Your task to perform on an android device: open sync settings in chrome Image 0: 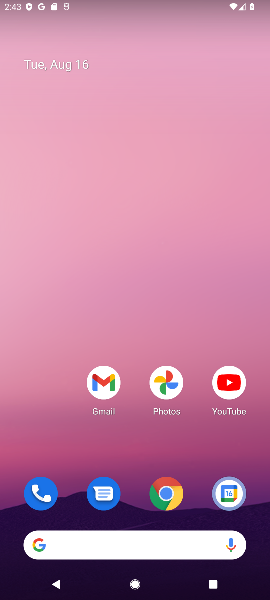
Step 0: press home button
Your task to perform on an android device: open sync settings in chrome Image 1: 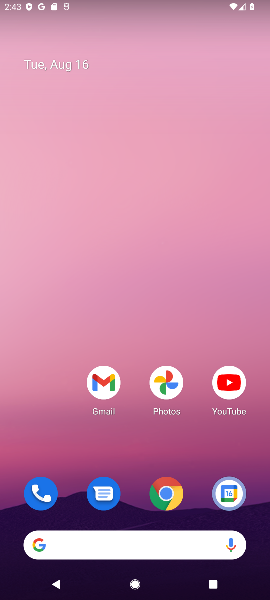
Step 1: drag from (64, 438) to (57, 135)
Your task to perform on an android device: open sync settings in chrome Image 2: 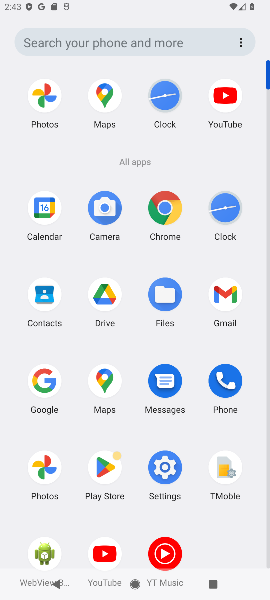
Step 2: click (167, 213)
Your task to perform on an android device: open sync settings in chrome Image 3: 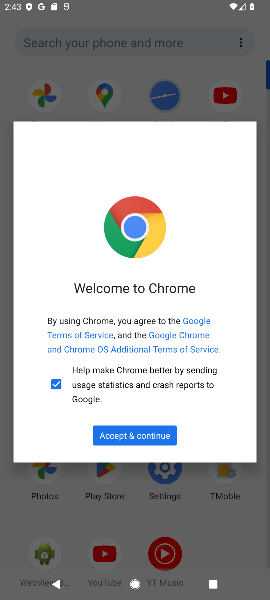
Step 3: click (143, 435)
Your task to perform on an android device: open sync settings in chrome Image 4: 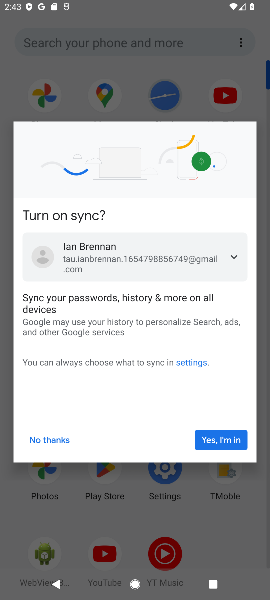
Step 4: click (232, 437)
Your task to perform on an android device: open sync settings in chrome Image 5: 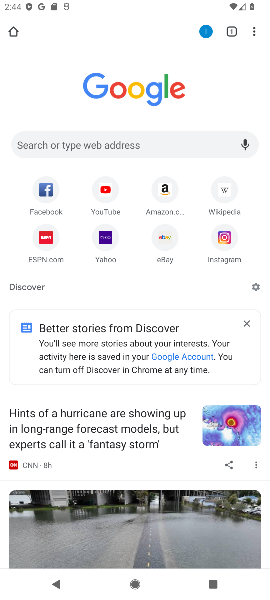
Step 5: click (254, 32)
Your task to perform on an android device: open sync settings in chrome Image 6: 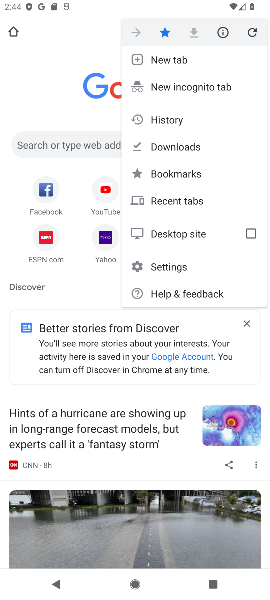
Step 6: click (177, 265)
Your task to perform on an android device: open sync settings in chrome Image 7: 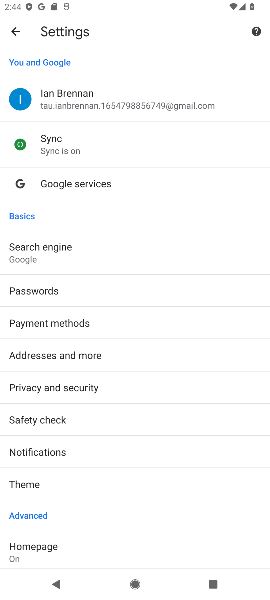
Step 7: drag from (216, 429) to (217, 357)
Your task to perform on an android device: open sync settings in chrome Image 8: 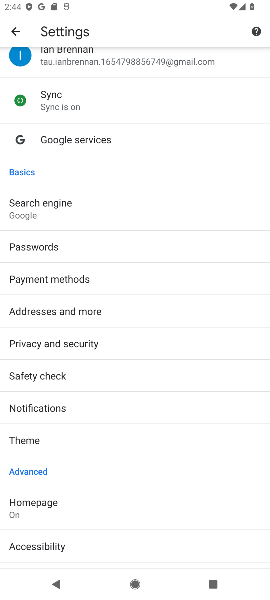
Step 8: drag from (229, 465) to (233, 349)
Your task to perform on an android device: open sync settings in chrome Image 9: 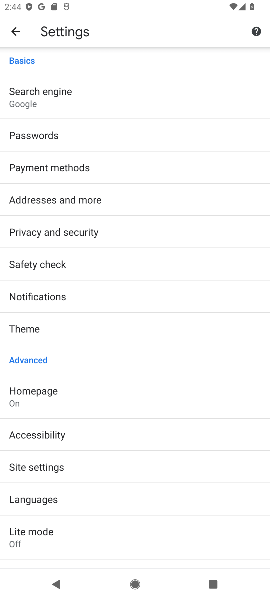
Step 9: drag from (210, 467) to (212, 286)
Your task to perform on an android device: open sync settings in chrome Image 10: 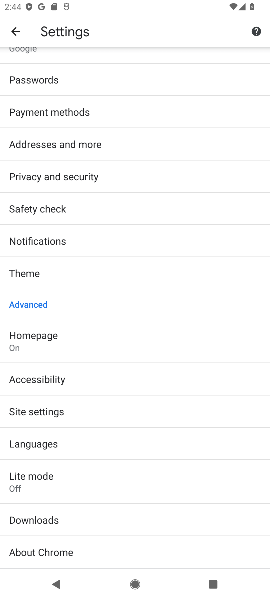
Step 10: click (200, 405)
Your task to perform on an android device: open sync settings in chrome Image 11: 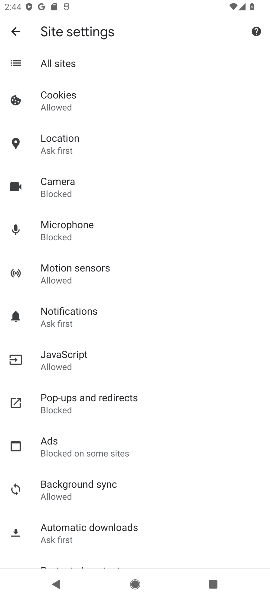
Step 11: drag from (197, 415) to (199, 330)
Your task to perform on an android device: open sync settings in chrome Image 12: 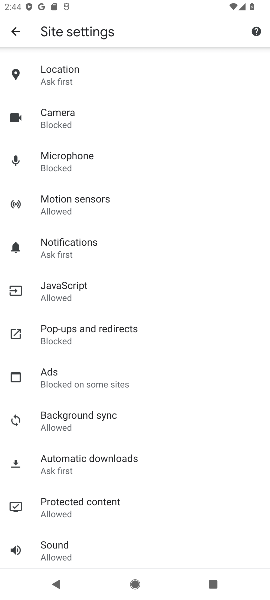
Step 12: drag from (185, 430) to (211, 277)
Your task to perform on an android device: open sync settings in chrome Image 13: 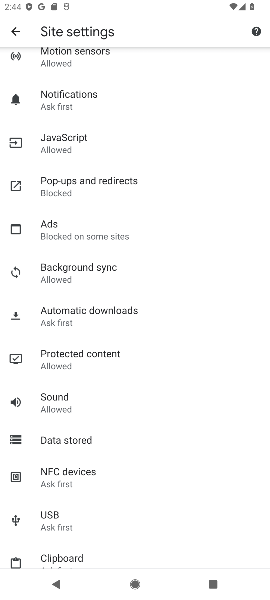
Step 13: click (170, 270)
Your task to perform on an android device: open sync settings in chrome Image 14: 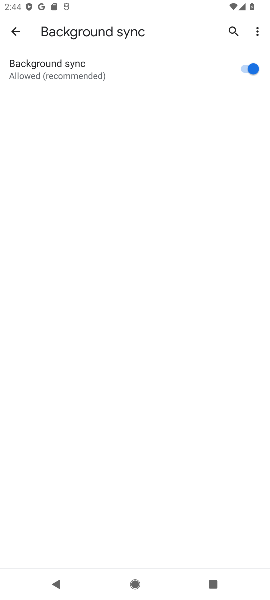
Step 14: task complete